Your task to perform on an android device: Open eBay Image 0: 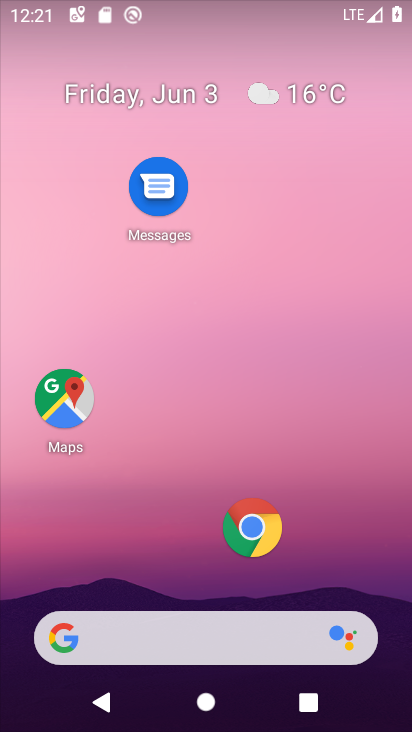
Step 0: press home button
Your task to perform on an android device: Open eBay Image 1: 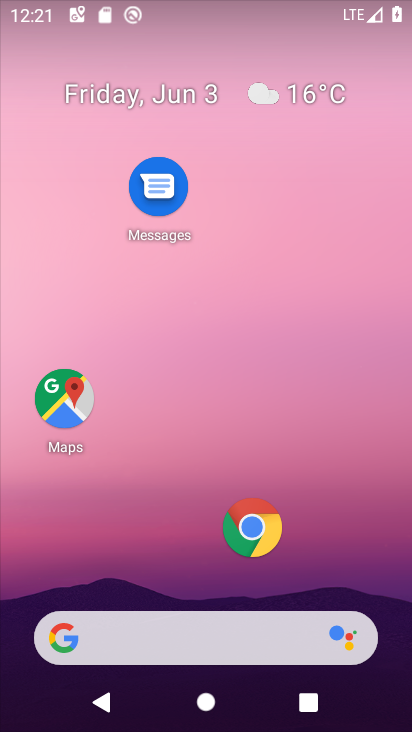
Step 1: click (247, 519)
Your task to perform on an android device: Open eBay Image 2: 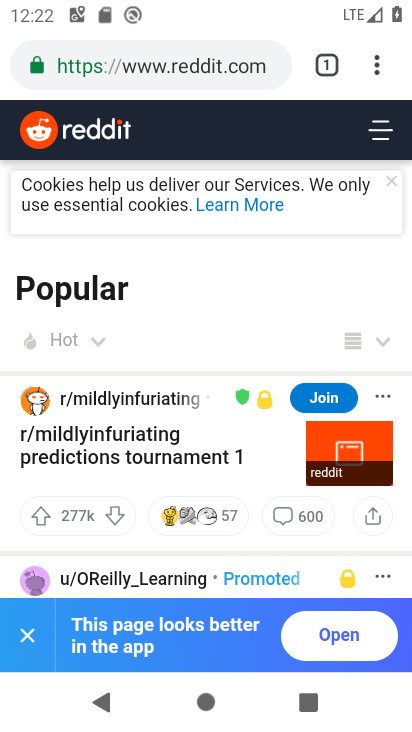
Step 2: click (324, 59)
Your task to perform on an android device: Open eBay Image 3: 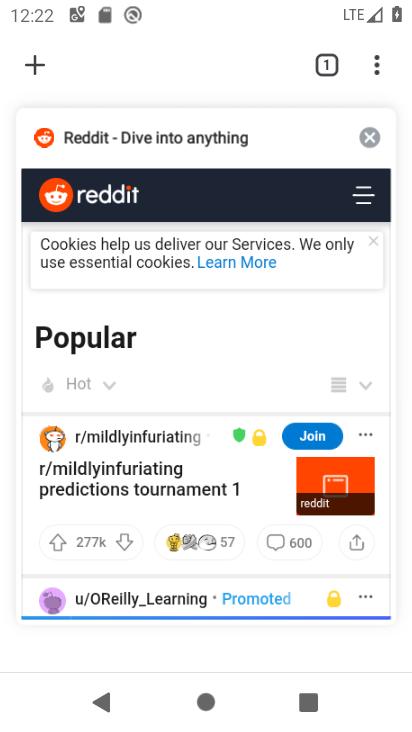
Step 3: click (370, 132)
Your task to perform on an android device: Open eBay Image 4: 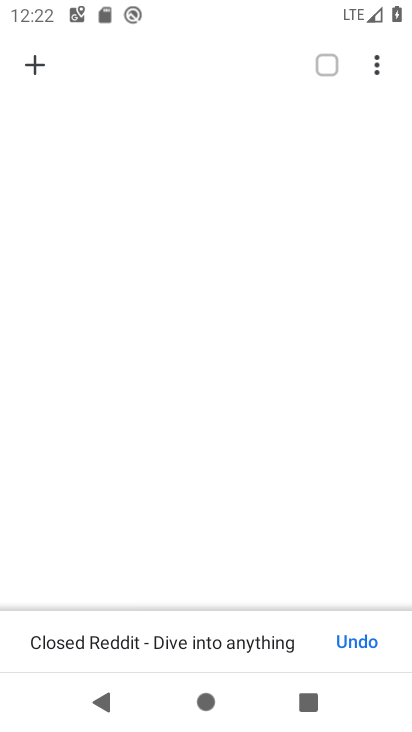
Step 4: click (40, 66)
Your task to perform on an android device: Open eBay Image 5: 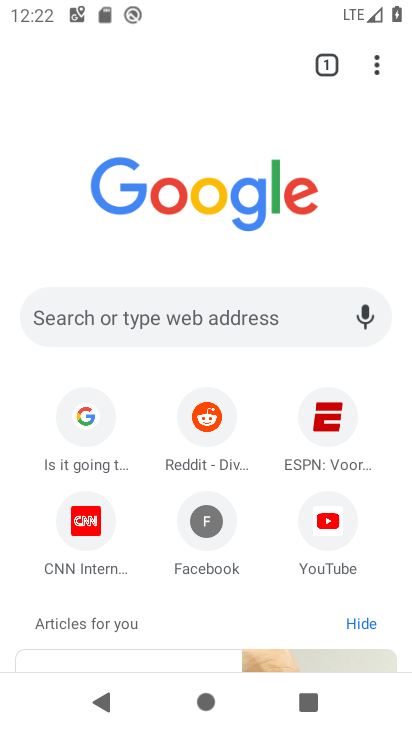
Step 5: click (117, 317)
Your task to perform on an android device: Open eBay Image 6: 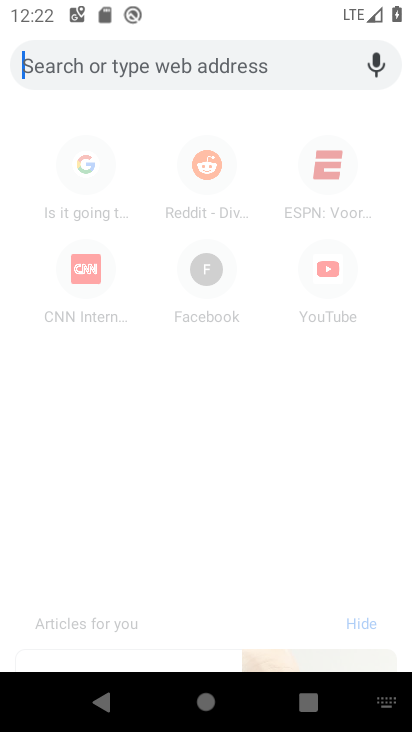
Step 6: type "ebay"
Your task to perform on an android device: Open eBay Image 7: 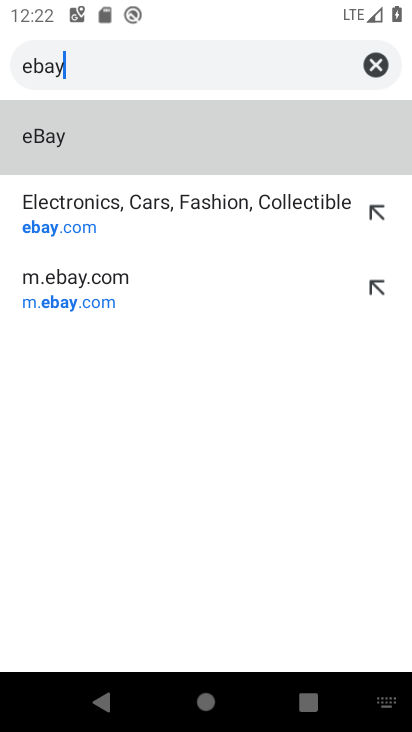
Step 7: click (123, 218)
Your task to perform on an android device: Open eBay Image 8: 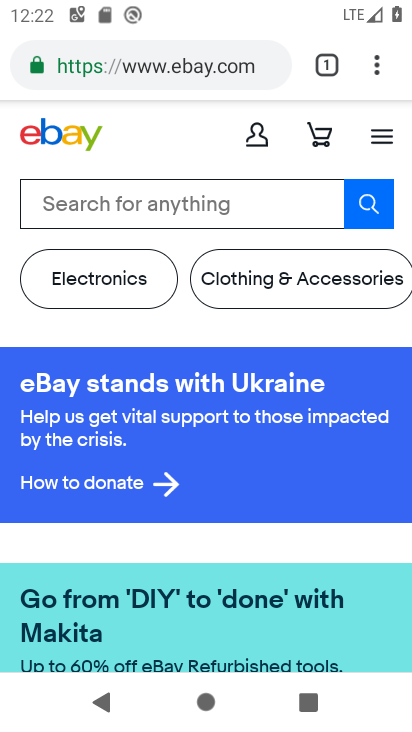
Step 8: drag from (206, 558) to (238, 136)
Your task to perform on an android device: Open eBay Image 9: 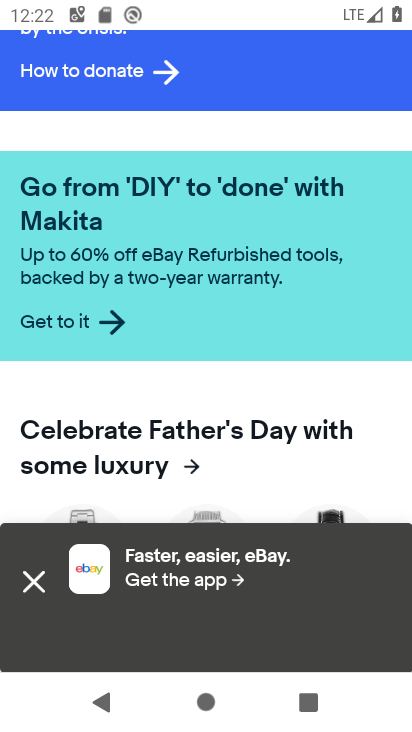
Step 9: click (33, 585)
Your task to perform on an android device: Open eBay Image 10: 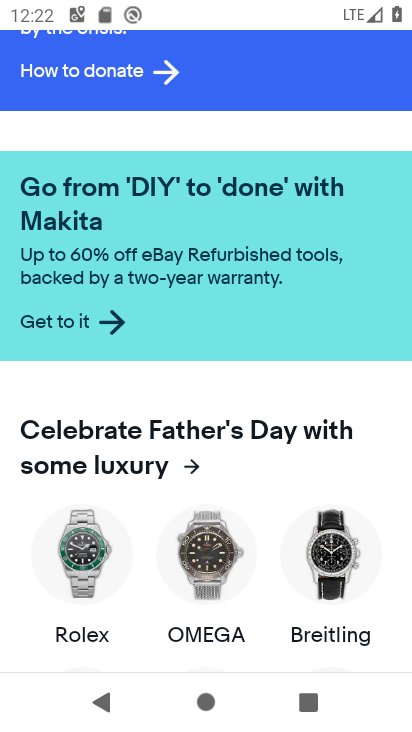
Step 10: task complete